Your task to perform on an android device: Is it going to rain this weekend? Image 0: 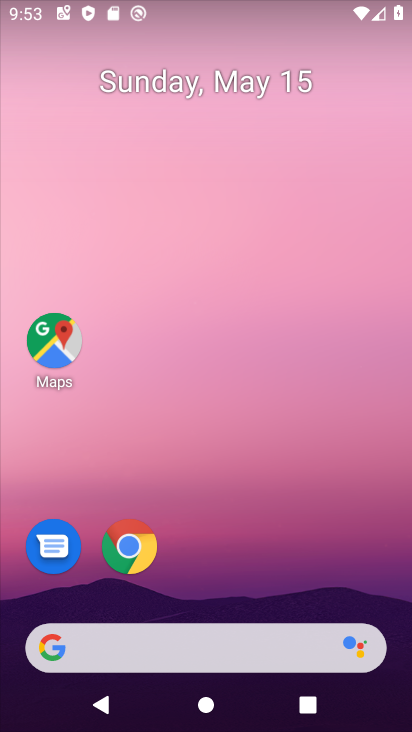
Step 0: drag from (241, 564) to (221, 46)
Your task to perform on an android device: Is it going to rain this weekend? Image 1: 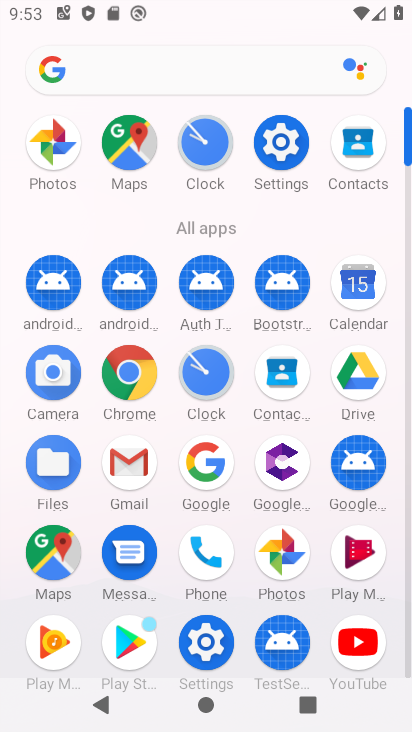
Step 1: click (130, 380)
Your task to perform on an android device: Is it going to rain this weekend? Image 2: 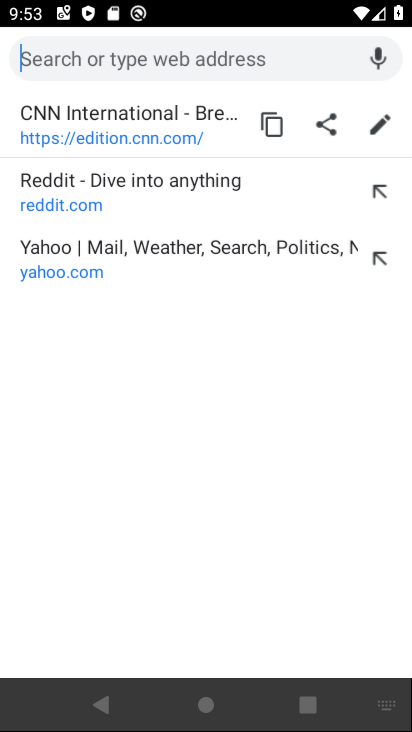
Step 2: click (145, 60)
Your task to perform on an android device: Is it going to rain this weekend? Image 3: 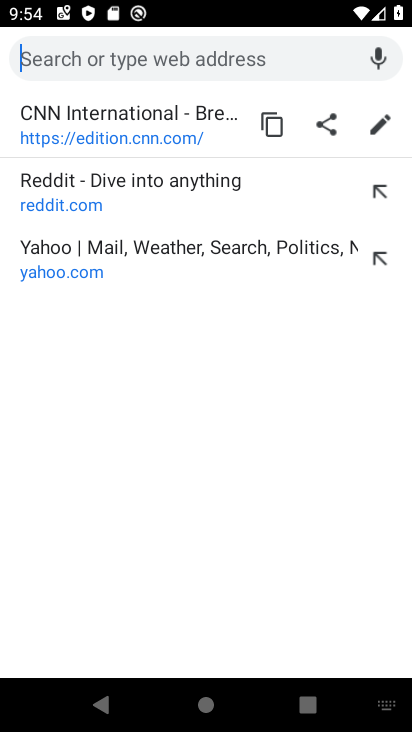
Step 3: type "weather"
Your task to perform on an android device: Is it going to rain this weekend? Image 4: 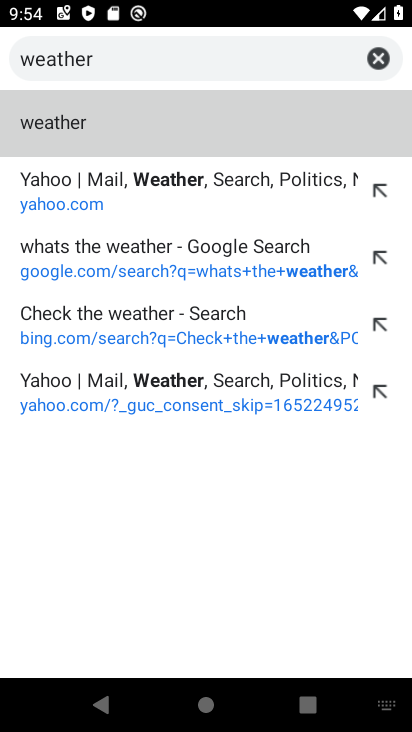
Step 4: click (44, 119)
Your task to perform on an android device: Is it going to rain this weekend? Image 5: 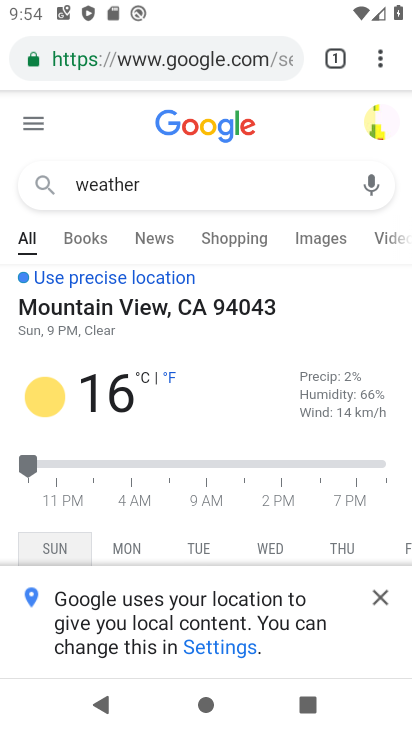
Step 5: task complete